Your task to perform on an android device: toggle wifi Image 0: 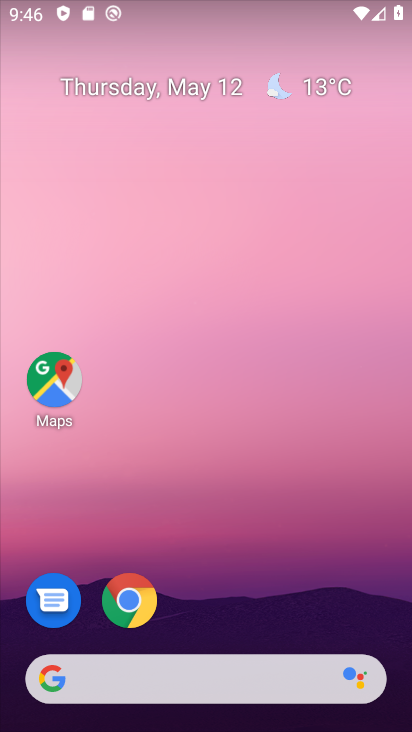
Step 0: drag from (81, 4) to (122, 549)
Your task to perform on an android device: toggle wifi Image 1: 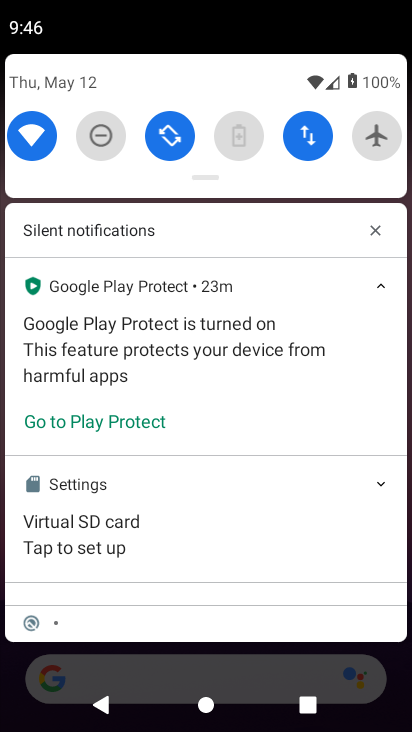
Step 1: click (34, 126)
Your task to perform on an android device: toggle wifi Image 2: 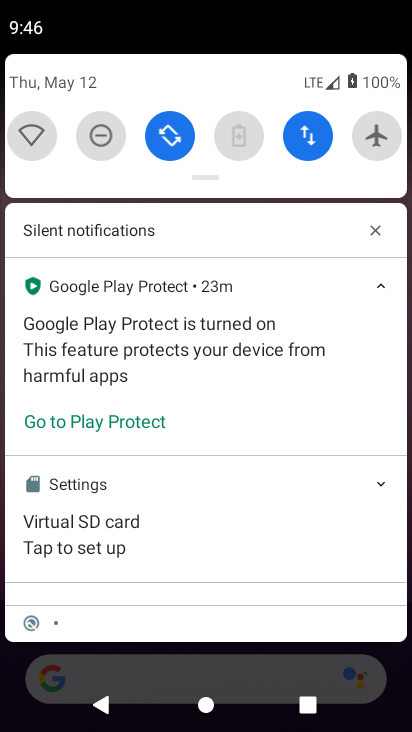
Step 2: task complete